Your task to perform on an android device: Find coffee shops on Maps Image 0: 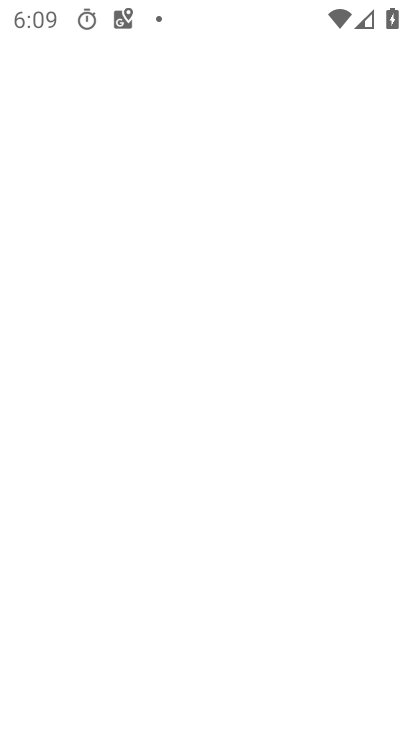
Step 0: click (206, 647)
Your task to perform on an android device: Find coffee shops on Maps Image 1: 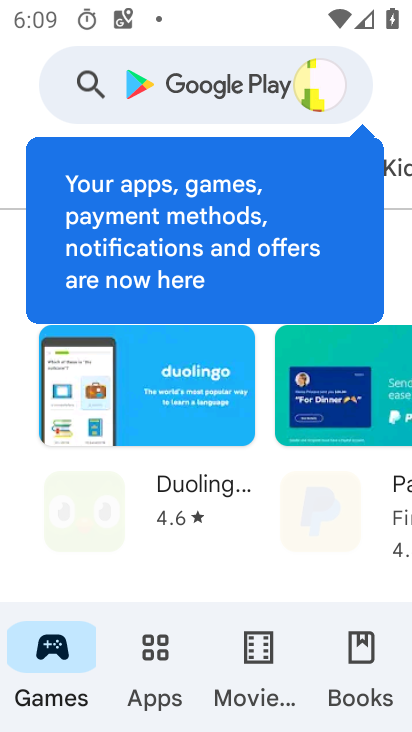
Step 1: press home button
Your task to perform on an android device: Find coffee shops on Maps Image 2: 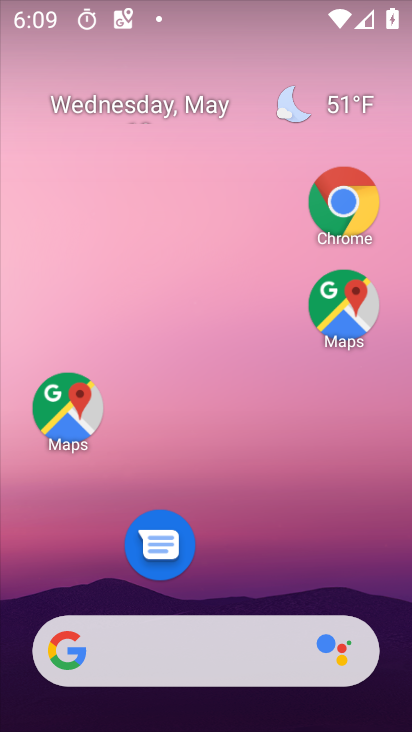
Step 2: click (75, 416)
Your task to perform on an android device: Find coffee shops on Maps Image 3: 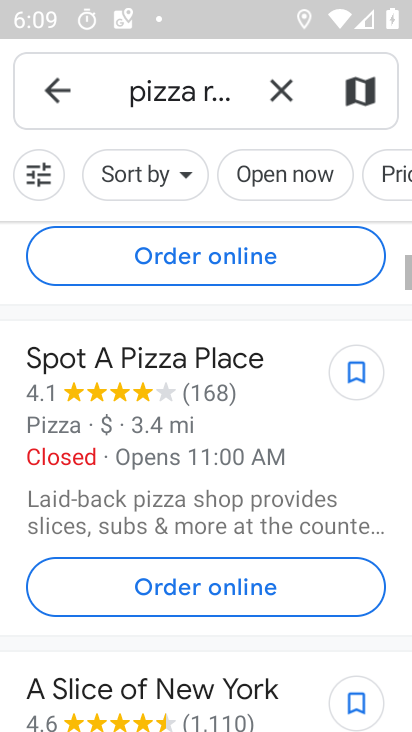
Step 3: click (287, 98)
Your task to perform on an android device: Find coffee shops on Maps Image 4: 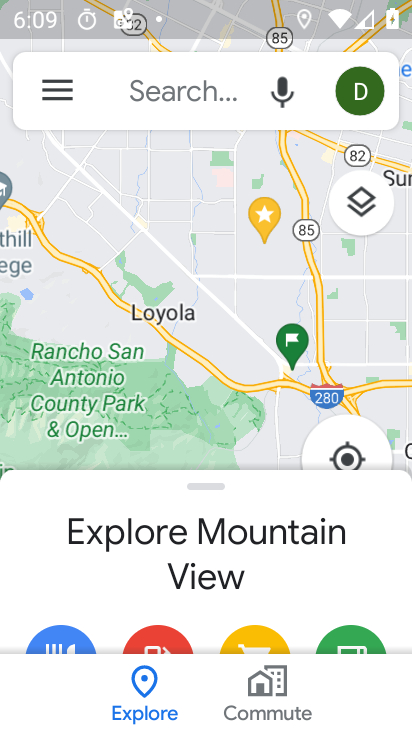
Step 4: click (180, 91)
Your task to perform on an android device: Find coffee shops on Maps Image 5: 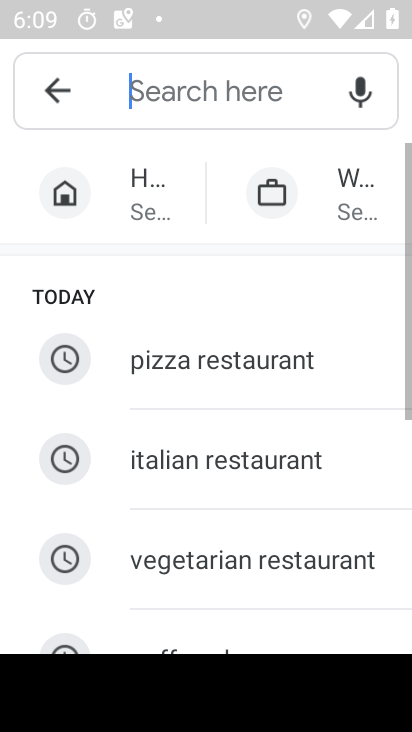
Step 5: drag from (240, 597) to (213, 328)
Your task to perform on an android device: Find coffee shops on Maps Image 6: 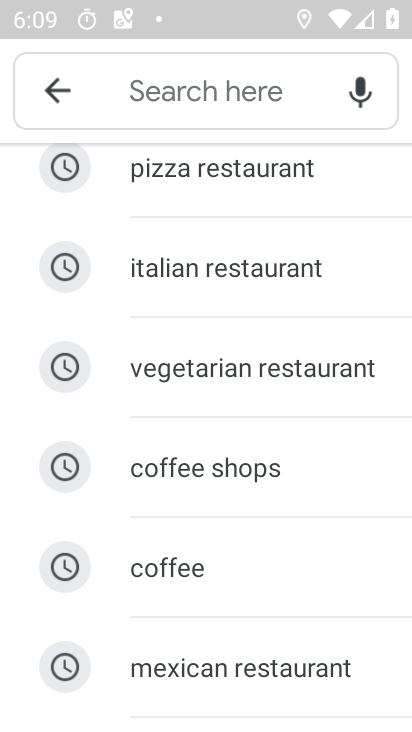
Step 6: click (214, 468)
Your task to perform on an android device: Find coffee shops on Maps Image 7: 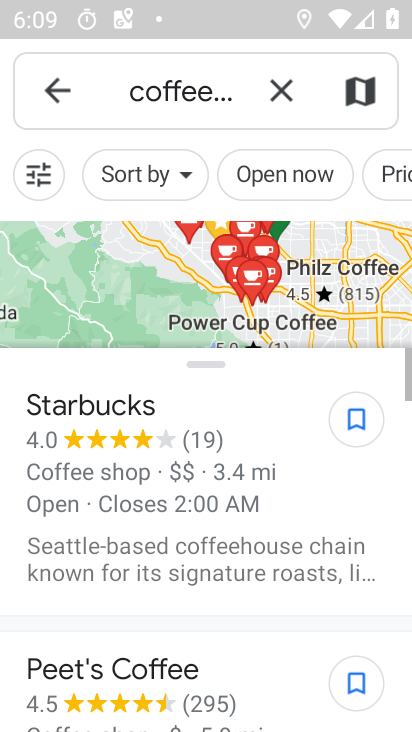
Step 7: task complete